Your task to perform on an android device: Open Google Chrome Image 0: 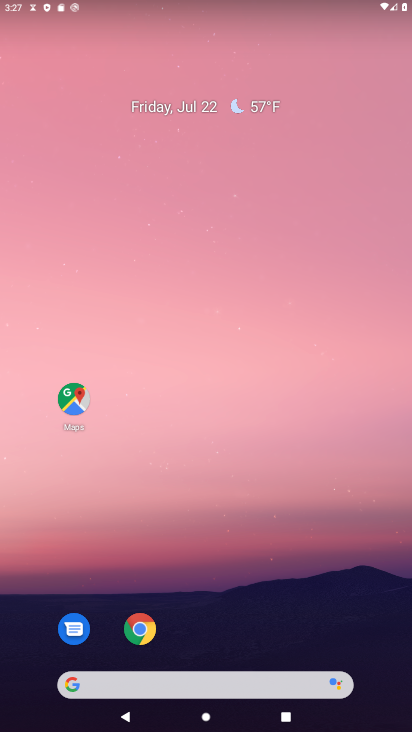
Step 0: click (208, 233)
Your task to perform on an android device: Open Google Chrome Image 1: 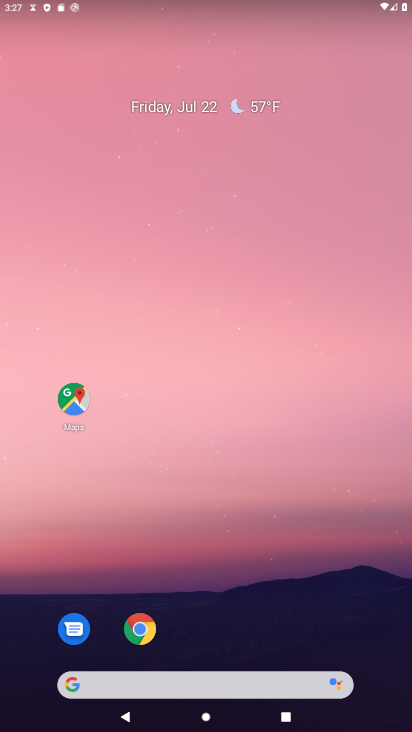
Step 1: drag from (327, 584) to (262, 173)
Your task to perform on an android device: Open Google Chrome Image 2: 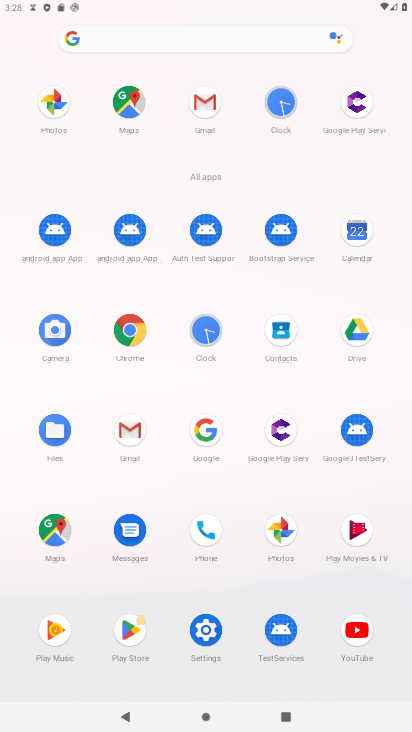
Step 2: click (130, 339)
Your task to perform on an android device: Open Google Chrome Image 3: 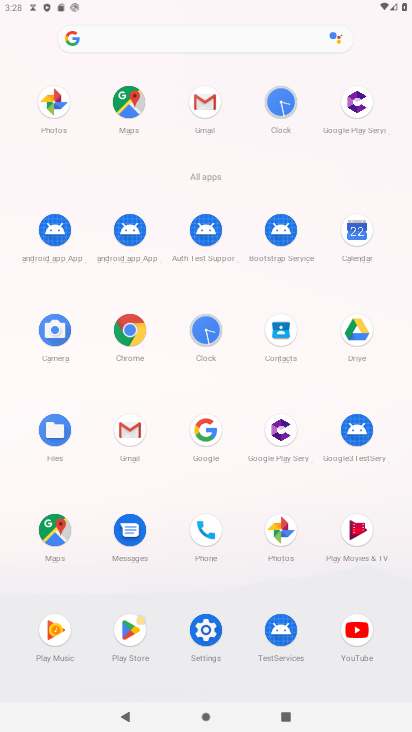
Step 3: click (137, 326)
Your task to perform on an android device: Open Google Chrome Image 4: 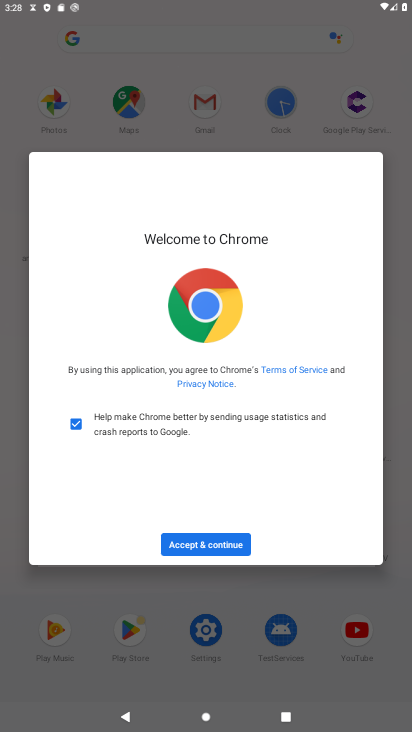
Step 4: click (216, 547)
Your task to perform on an android device: Open Google Chrome Image 5: 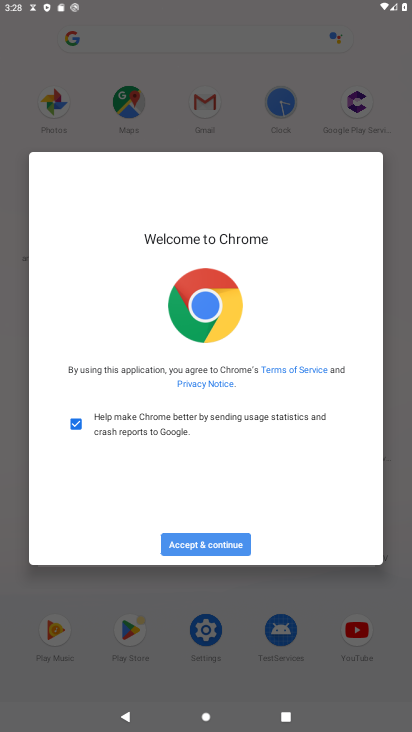
Step 5: click (218, 546)
Your task to perform on an android device: Open Google Chrome Image 6: 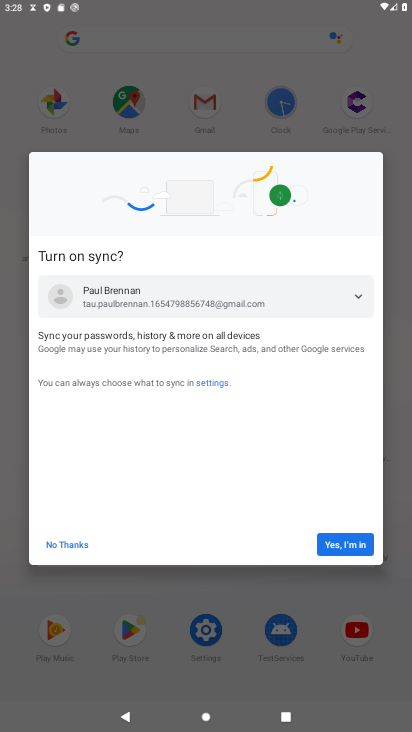
Step 6: click (218, 546)
Your task to perform on an android device: Open Google Chrome Image 7: 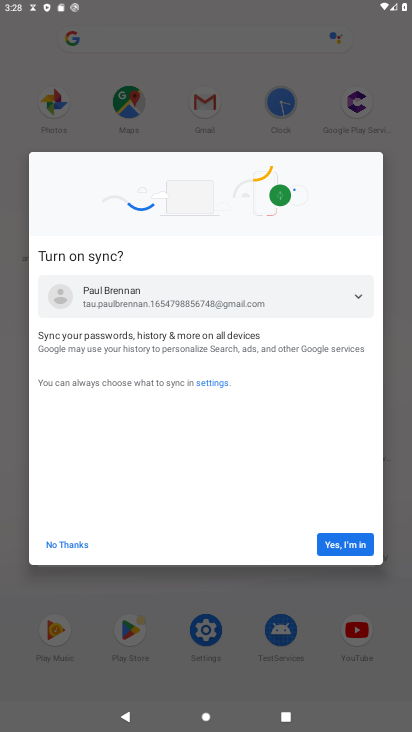
Step 7: click (69, 534)
Your task to perform on an android device: Open Google Chrome Image 8: 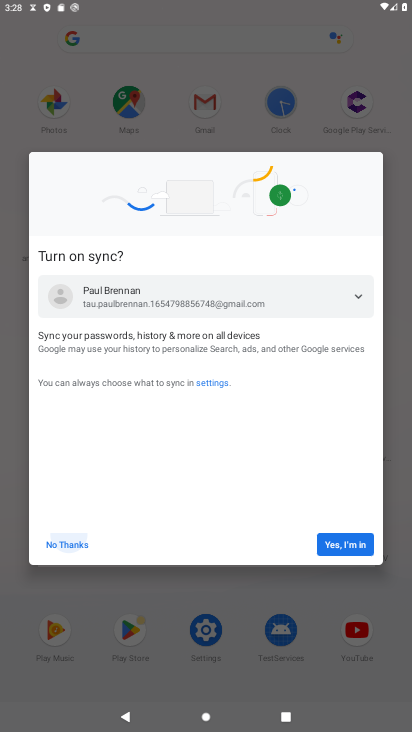
Step 8: click (68, 534)
Your task to perform on an android device: Open Google Chrome Image 9: 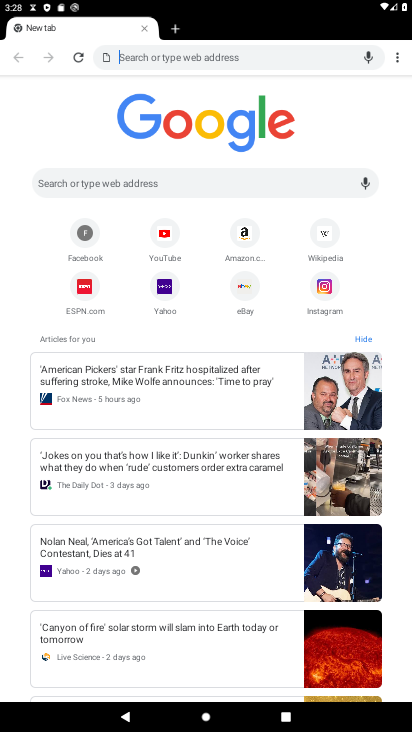
Step 9: task complete